Your task to perform on an android device: Search for sushi restaurants on Maps Image 0: 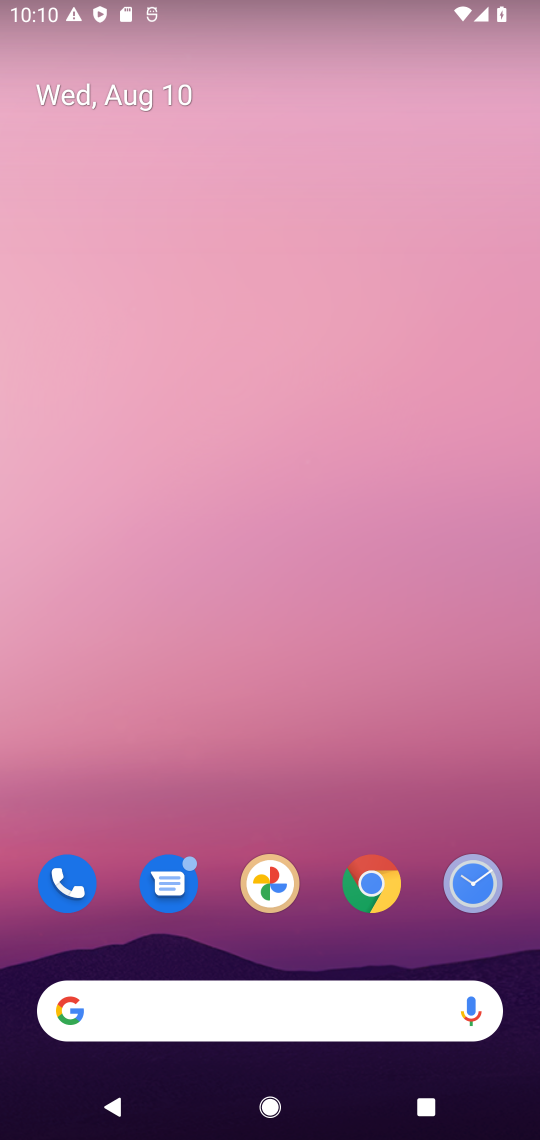
Step 0: drag from (329, 945) to (338, 251)
Your task to perform on an android device: Search for sushi restaurants on Maps Image 1: 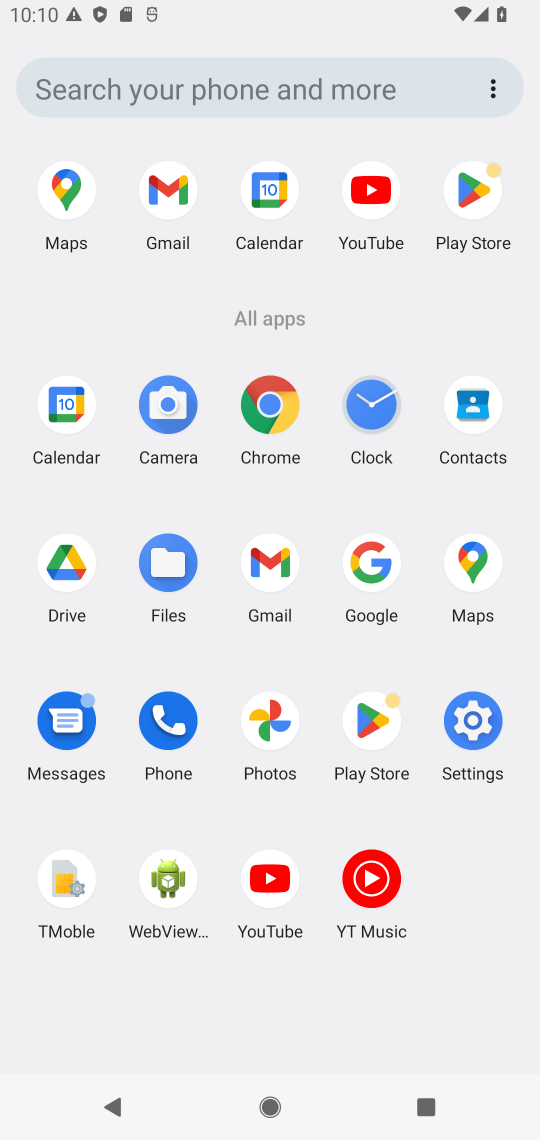
Step 1: click (477, 559)
Your task to perform on an android device: Search for sushi restaurants on Maps Image 2: 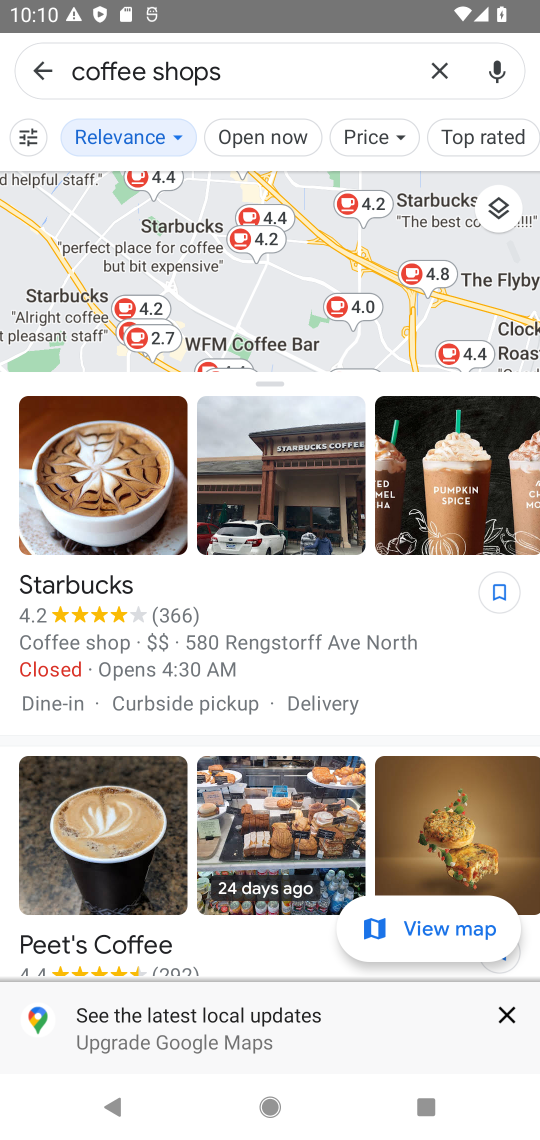
Step 2: click (432, 65)
Your task to perform on an android device: Search for sushi restaurants on Maps Image 3: 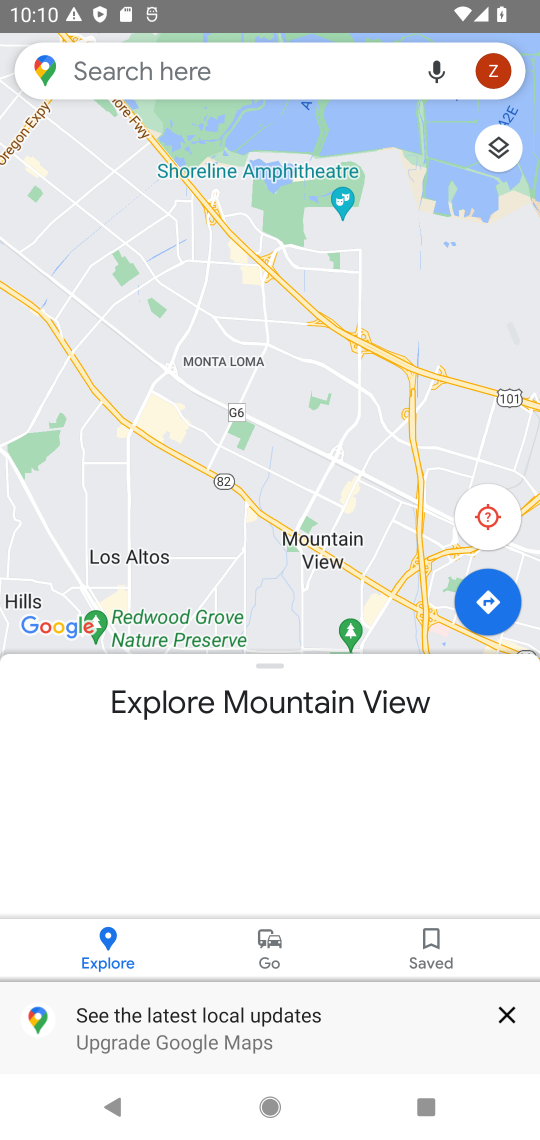
Step 3: click (247, 77)
Your task to perform on an android device: Search for sushi restaurants on Maps Image 4: 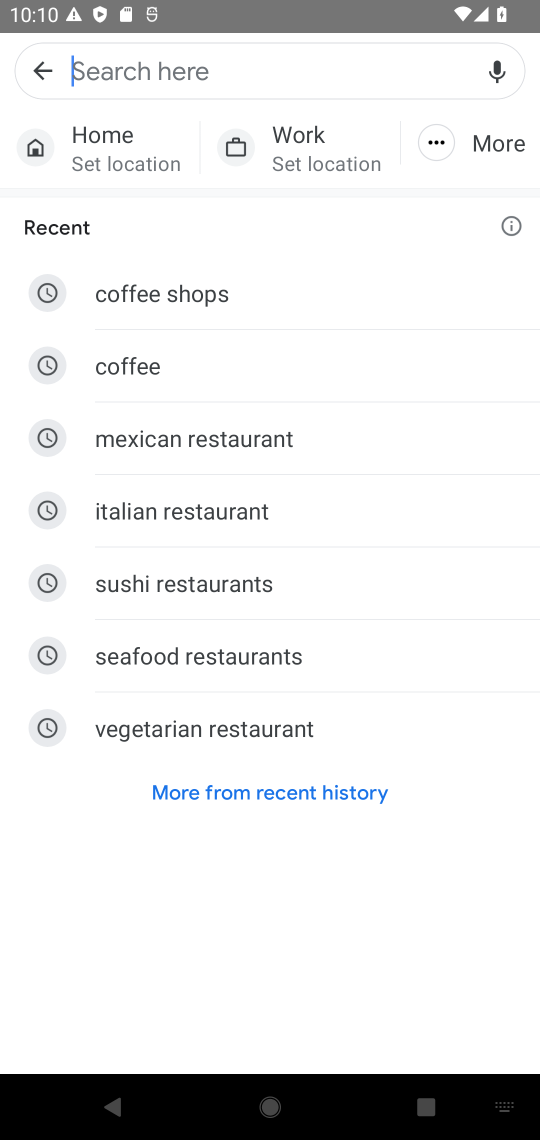
Step 4: type " sushi restaurants "
Your task to perform on an android device: Search for sushi restaurants on Maps Image 5: 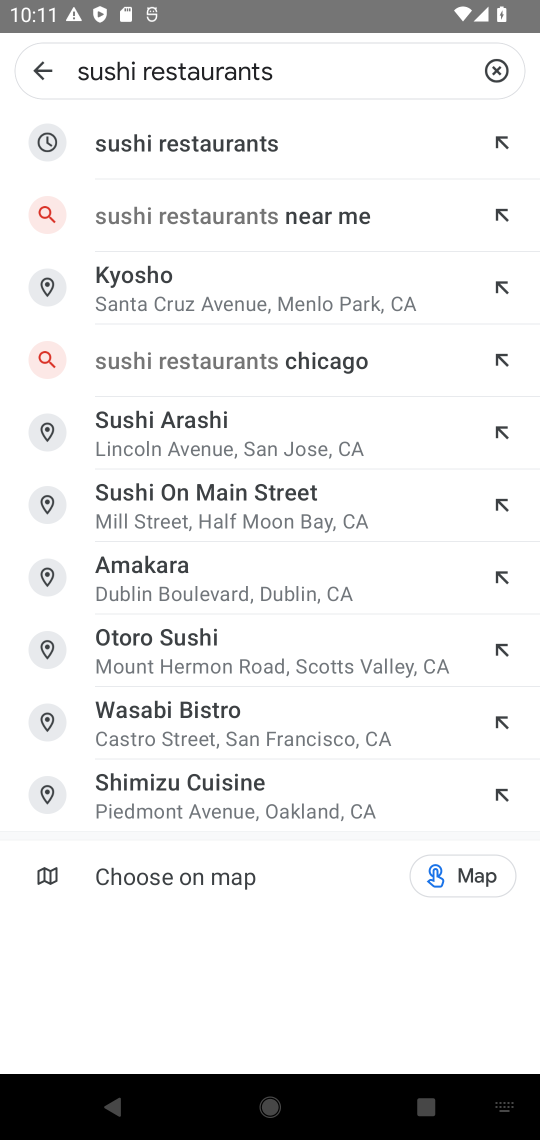
Step 5: click (214, 128)
Your task to perform on an android device: Search for sushi restaurants on Maps Image 6: 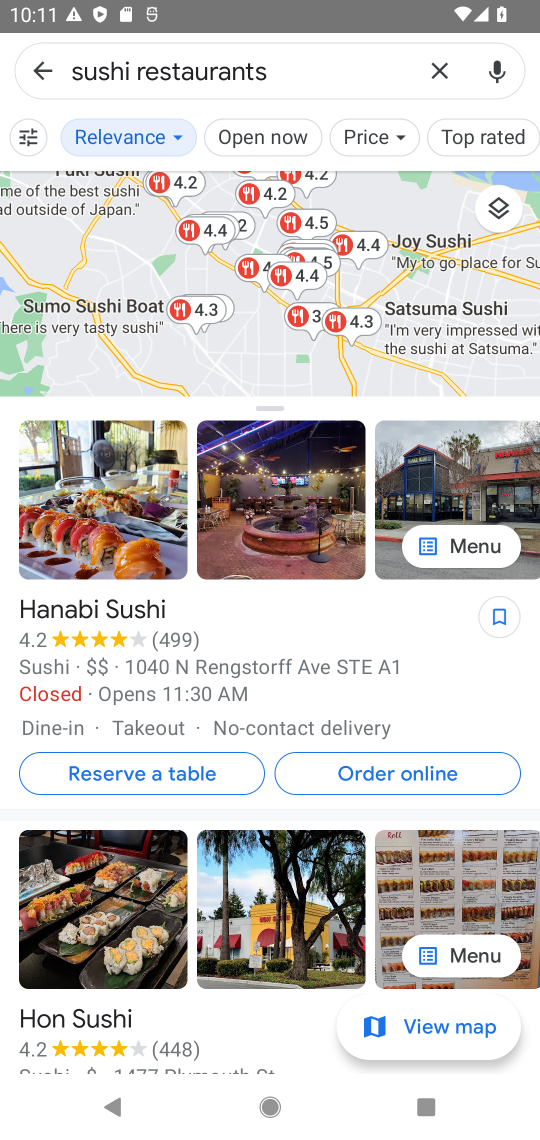
Step 6: task complete